Your task to perform on an android device: change alarm snooze length Image 0: 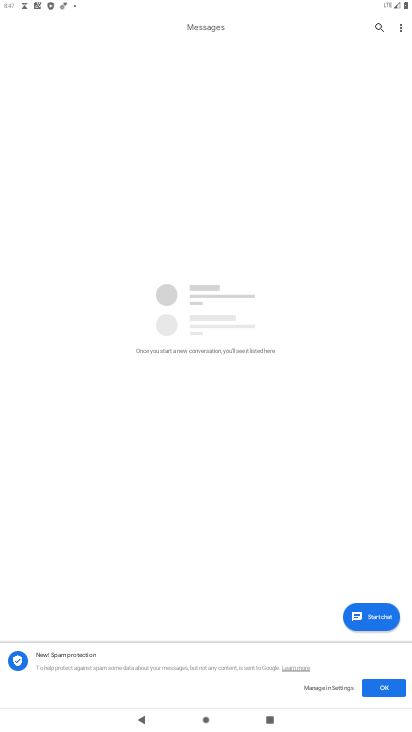
Step 0: press home button
Your task to perform on an android device: change alarm snooze length Image 1: 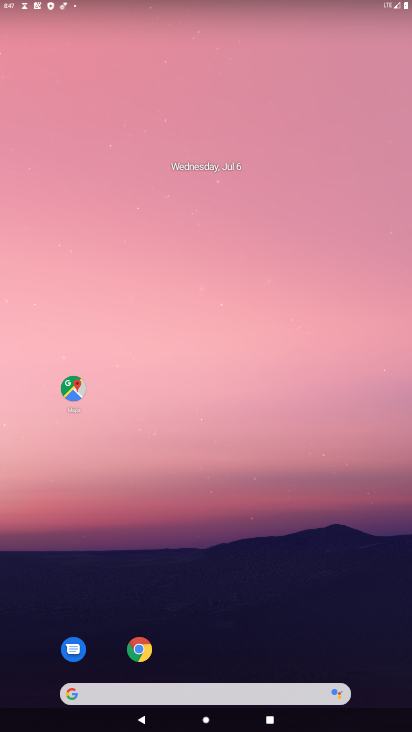
Step 1: drag from (227, 657) to (253, 4)
Your task to perform on an android device: change alarm snooze length Image 2: 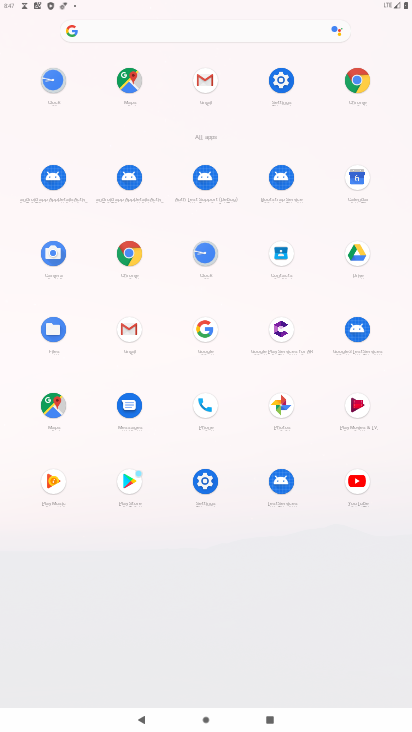
Step 2: click (209, 248)
Your task to perform on an android device: change alarm snooze length Image 3: 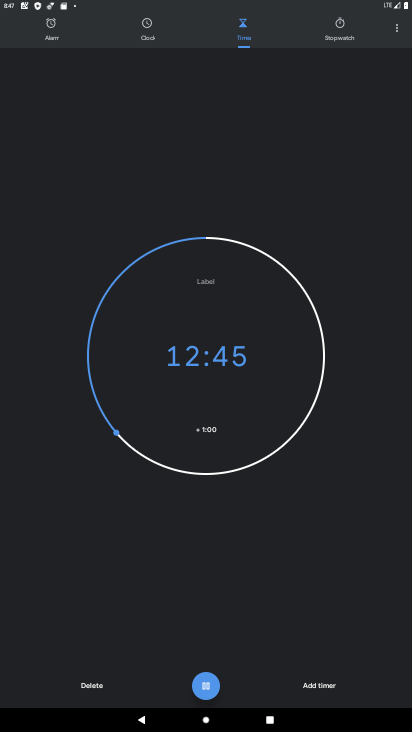
Step 3: click (397, 37)
Your task to perform on an android device: change alarm snooze length Image 4: 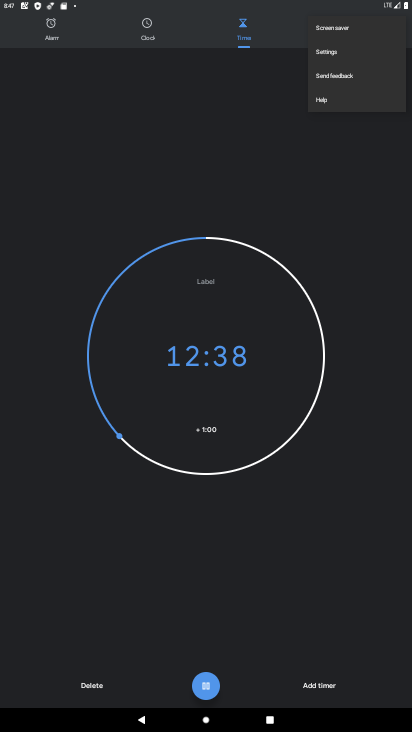
Step 4: click (343, 53)
Your task to perform on an android device: change alarm snooze length Image 5: 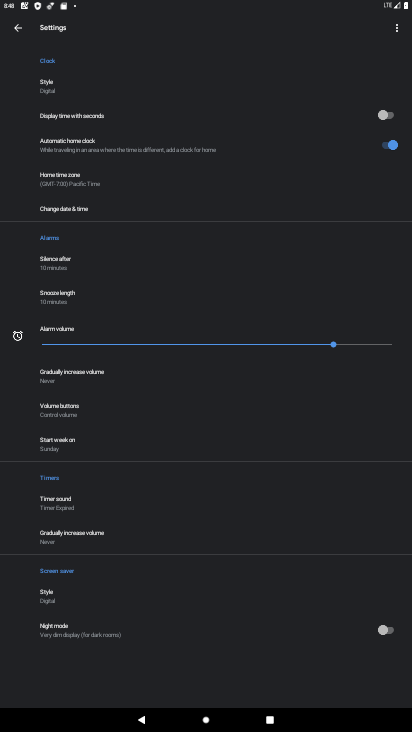
Step 5: click (83, 296)
Your task to perform on an android device: change alarm snooze length Image 6: 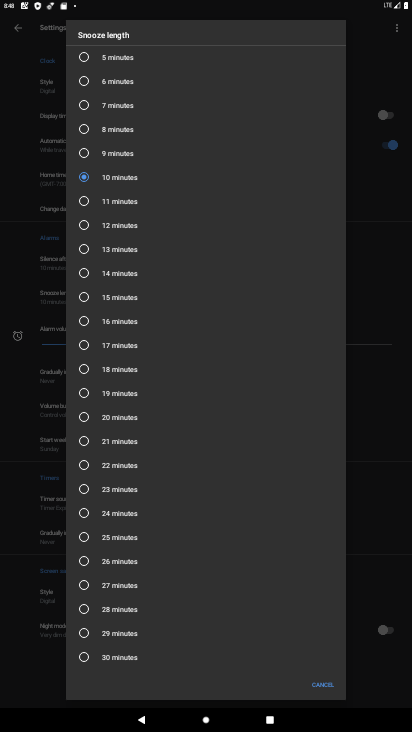
Step 6: click (83, 77)
Your task to perform on an android device: change alarm snooze length Image 7: 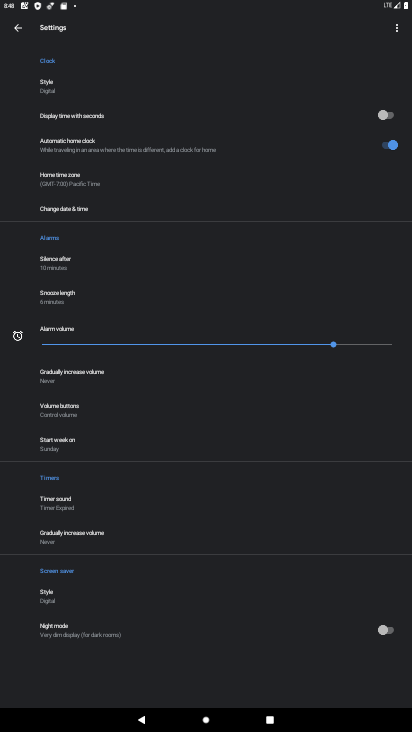
Step 7: task complete